Your task to perform on an android device: manage bookmarks in the chrome app Image 0: 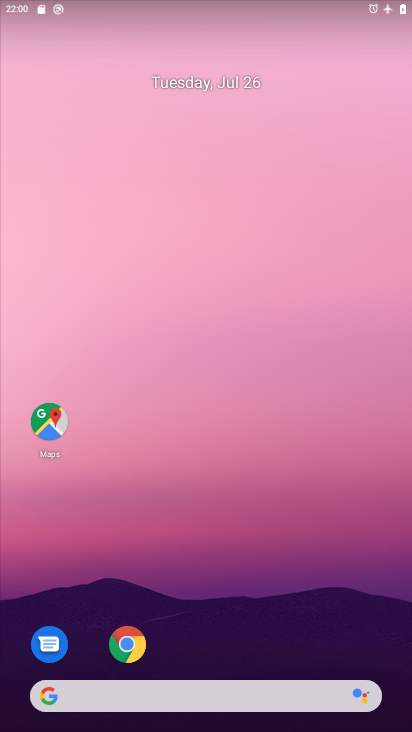
Step 0: drag from (244, 628) to (235, 298)
Your task to perform on an android device: manage bookmarks in the chrome app Image 1: 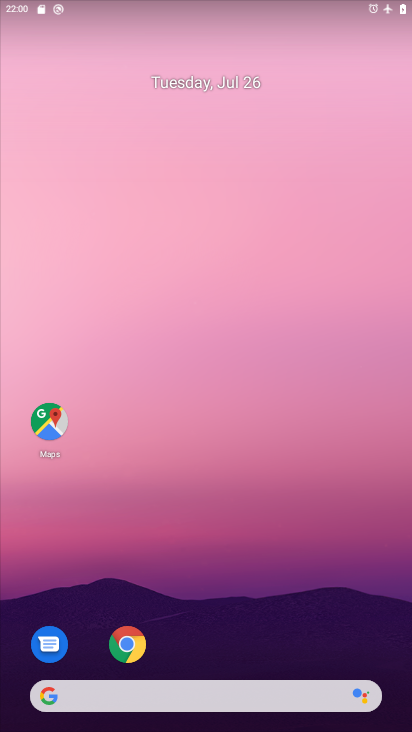
Step 1: drag from (224, 644) to (220, 253)
Your task to perform on an android device: manage bookmarks in the chrome app Image 2: 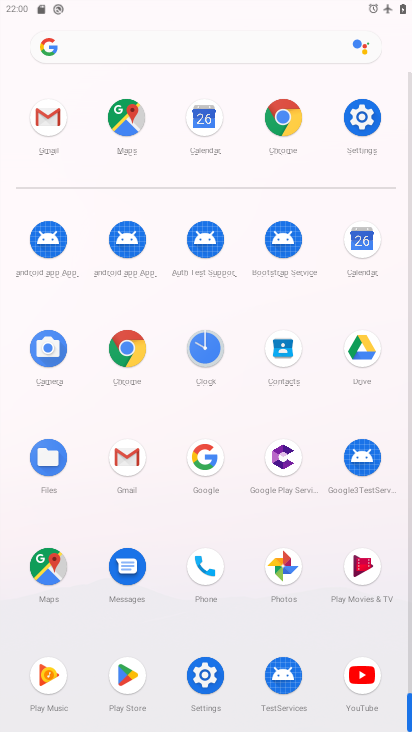
Step 2: click (279, 106)
Your task to perform on an android device: manage bookmarks in the chrome app Image 3: 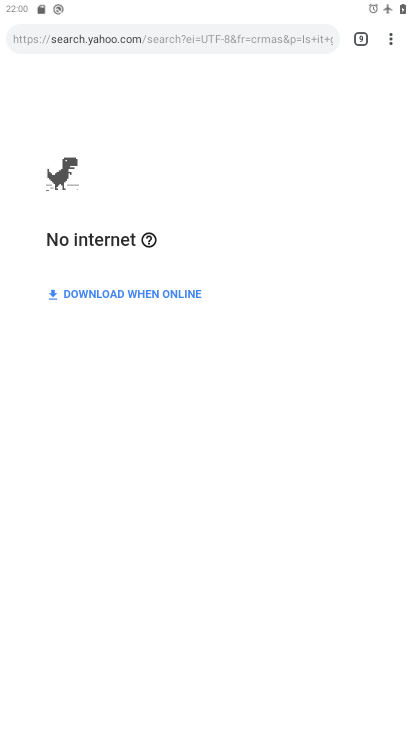
Step 3: click (397, 29)
Your task to perform on an android device: manage bookmarks in the chrome app Image 4: 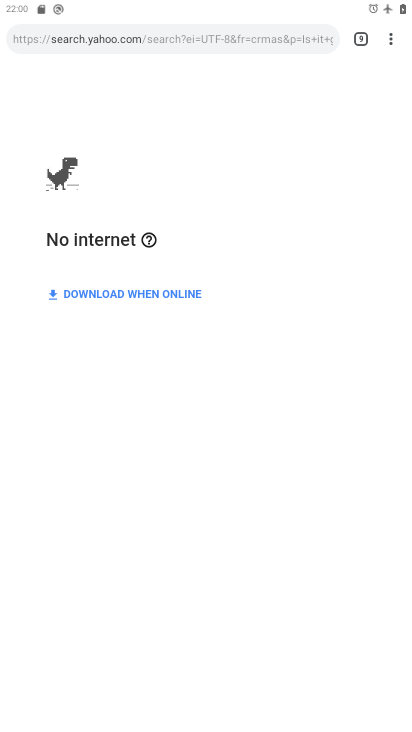
Step 4: click (397, 37)
Your task to perform on an android device: manage bookmarks in the chrome app Image 5: 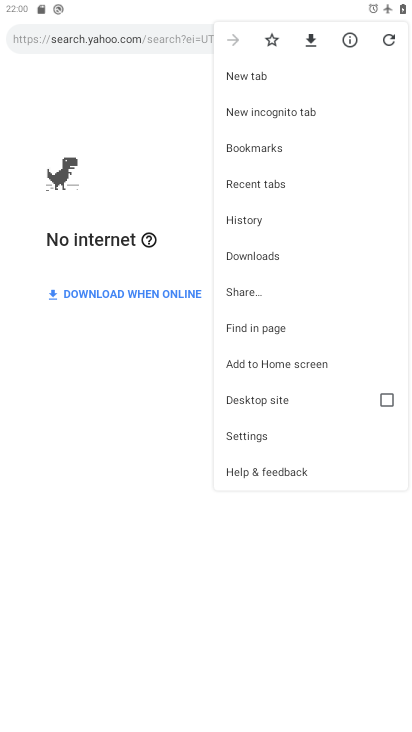
Step 5: click (269, 150)
Your task to perform on an android device: manage bookmarks in the chrome app Image 6: 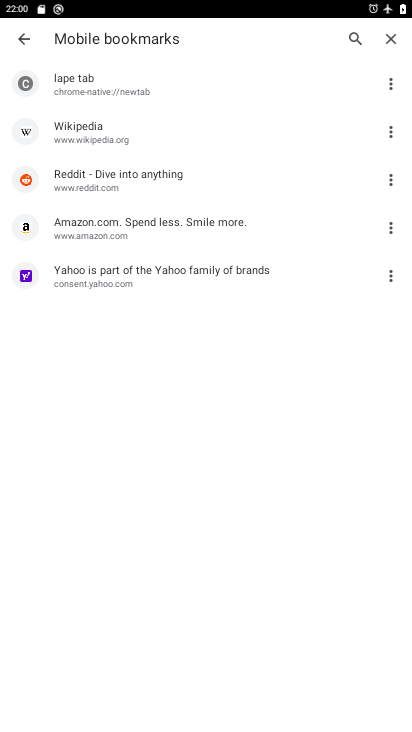
Step 6: click (82, 81)
Your task to perform on an android device: manage bookmarks in the chrome app Image 7: 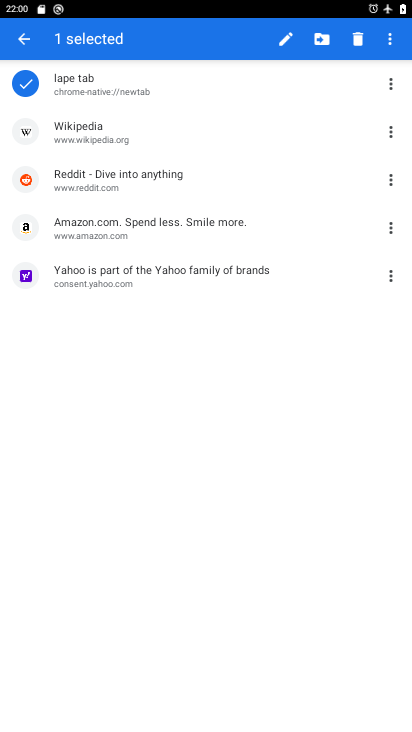
Step 7: click (90, 139)
Your task to perform on an android device: manage bookmarks in the chrome app Image 8: 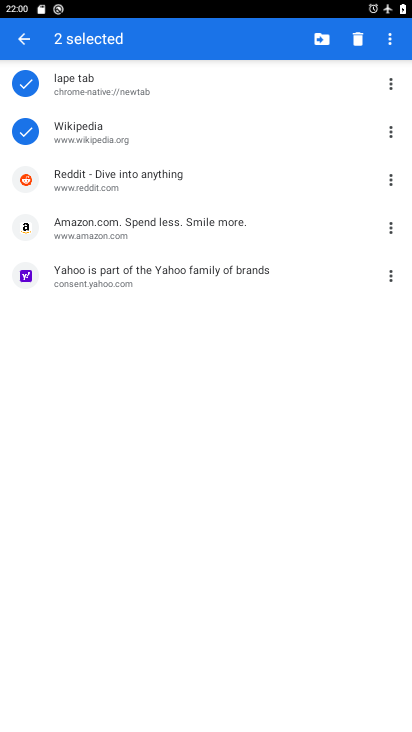
Step 8: click (90, 174)
Your task to perform on an android device: manage bookmarks in the chrome app Image 9: 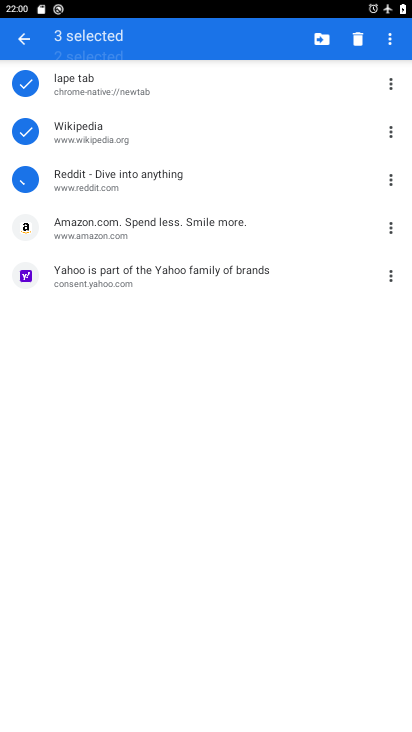
Step 9: click (94, 211)
Your task to perform on an android device: manage bookmarks in the chrome app Image 10: 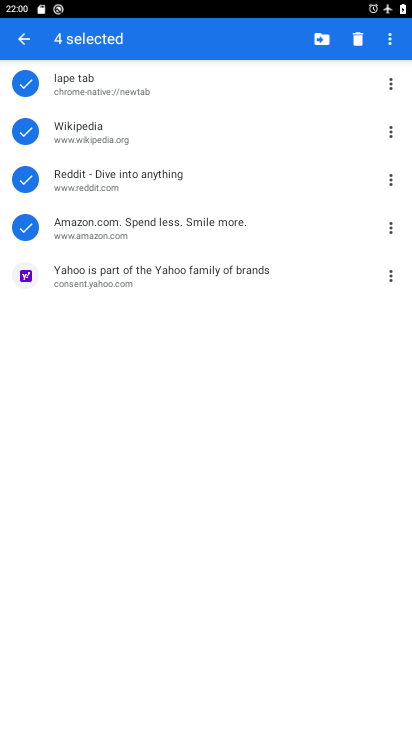
Step 10: click (101, 266)
Your task to perform on an android device: manage bookmarks in the chrome app Image 11: 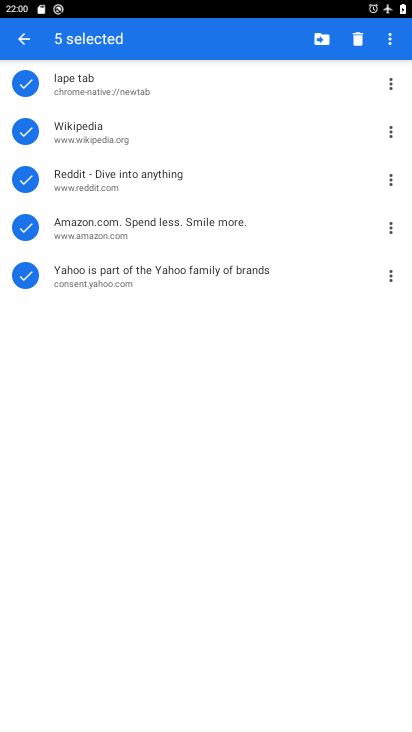
Step 11: click (327, 37)
Your task to perform on an android device: manage bookmarks in the chrome app Image 12: 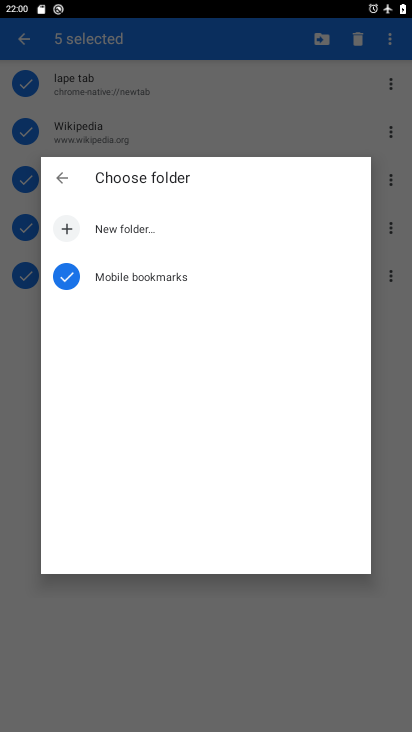
Step 12: click (134, 231)
Your task to perform on an android device: manage bookmarks in the chrome app Image 13: 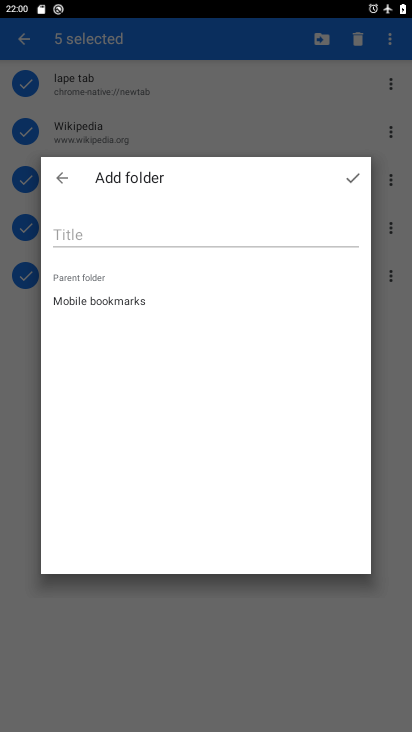
Step 13: click (134, 231)
Your task to perform on an android device: manage bookmarks in the chrome app Image 14: 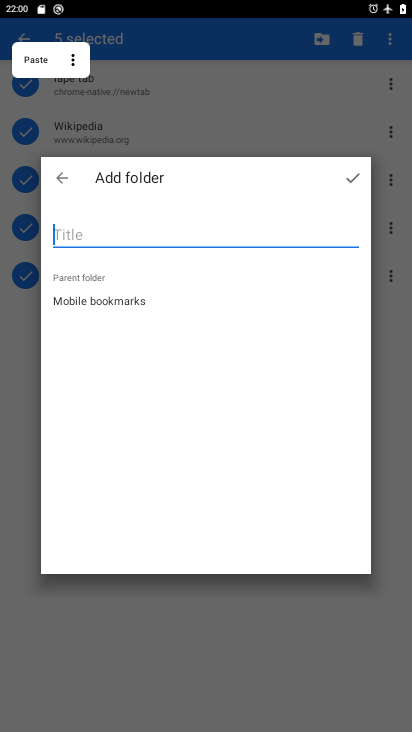
Step 14: type "hshsshshshhs "
Your task to perform on an android device: manage bookmarks in the chrome app Image 15: 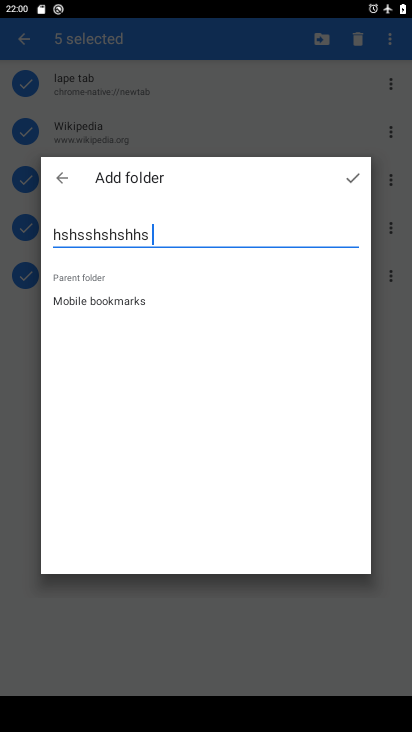
Step 15: click (351, 179)
Your task to perform on an android device: manage bookmarks in the chrome app Image 16: 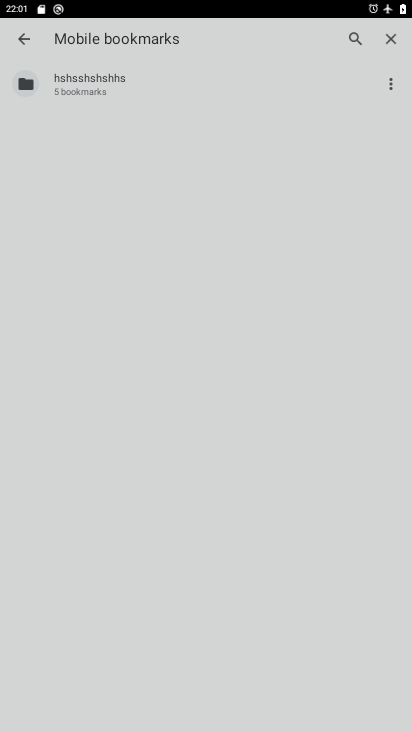
Step 16: task complete